Your task to perform on an android device: Search for a new lawnmower on home depot Image 0: 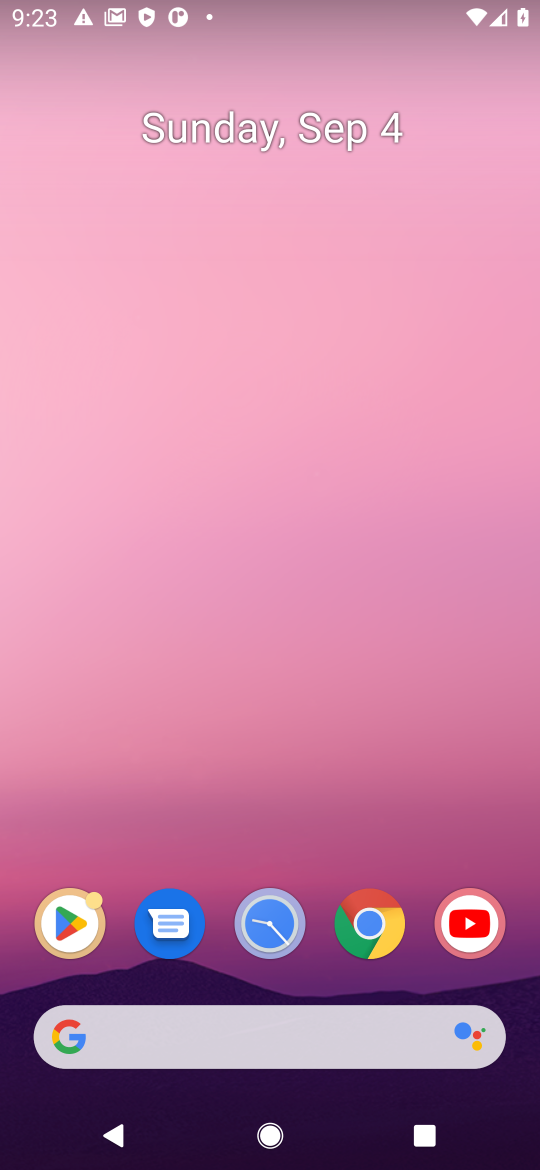
Step 0: press home button
Your task to perform on an android device: Search for a new lawnmower on home depot Image 1: 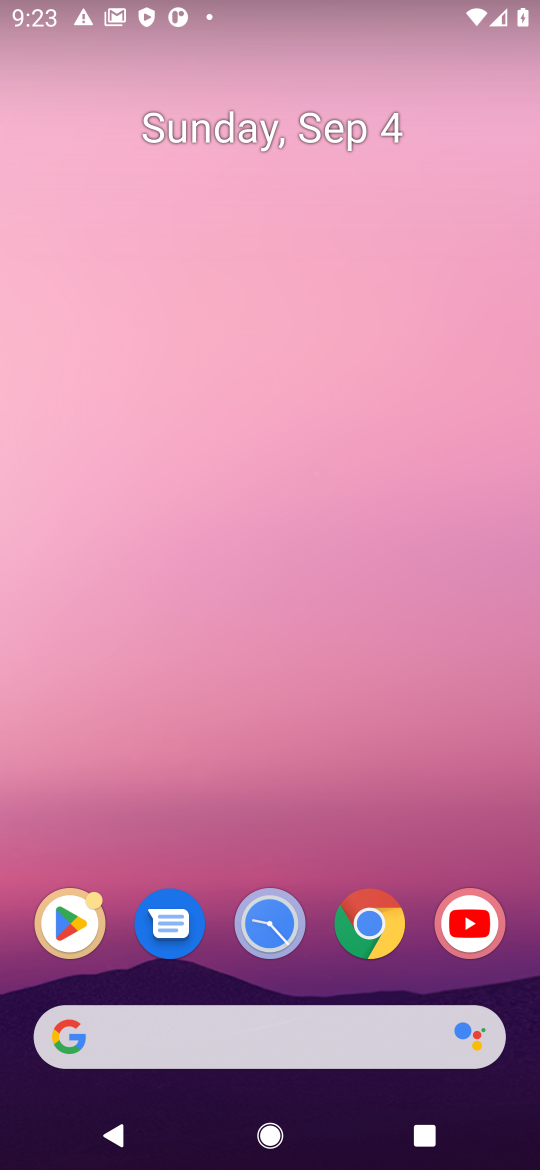
Step 1: click (400, 1033)
Your task to perform on an android device: Search for a new lawnmower on home depot Image 2: 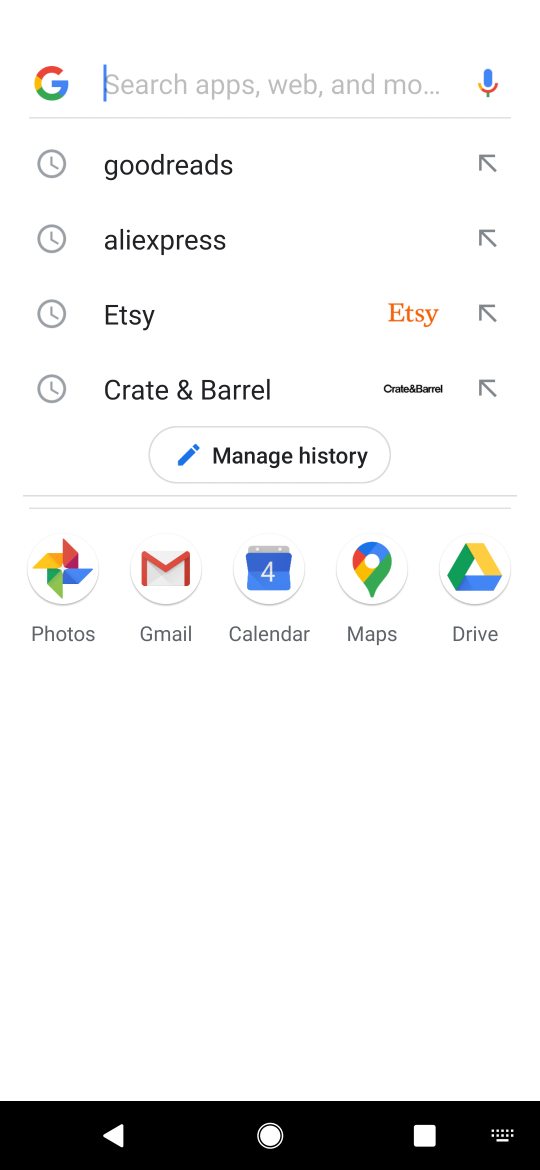
Step 2: press enter
Your task to perform on an android device: Search for a new lawnmower on home depot Image 3: 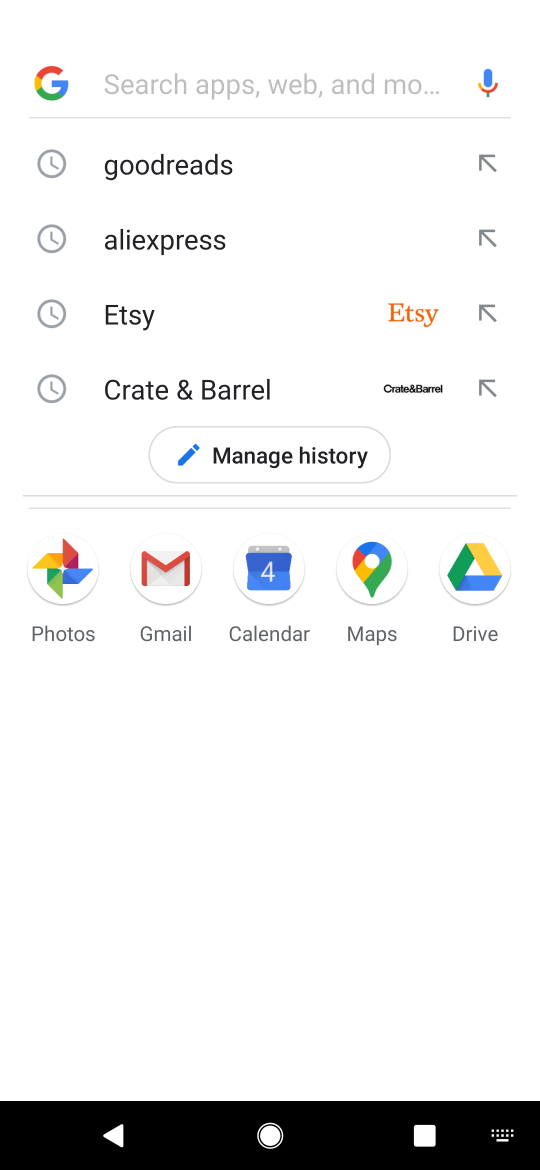
Step 3: type "home depot"
Your task to perform on an android device: Search for a new lawnmower on home depot Image 4: 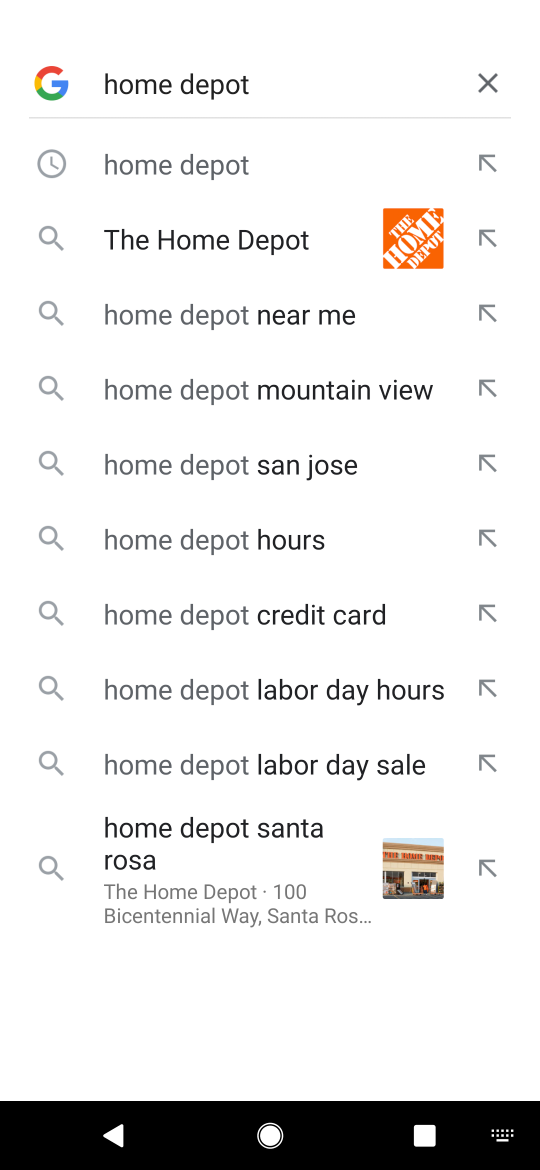
Step 4: click (248, 164)
Your task to perform on an android device: Search for a new lawnmower on home depot Image 5: 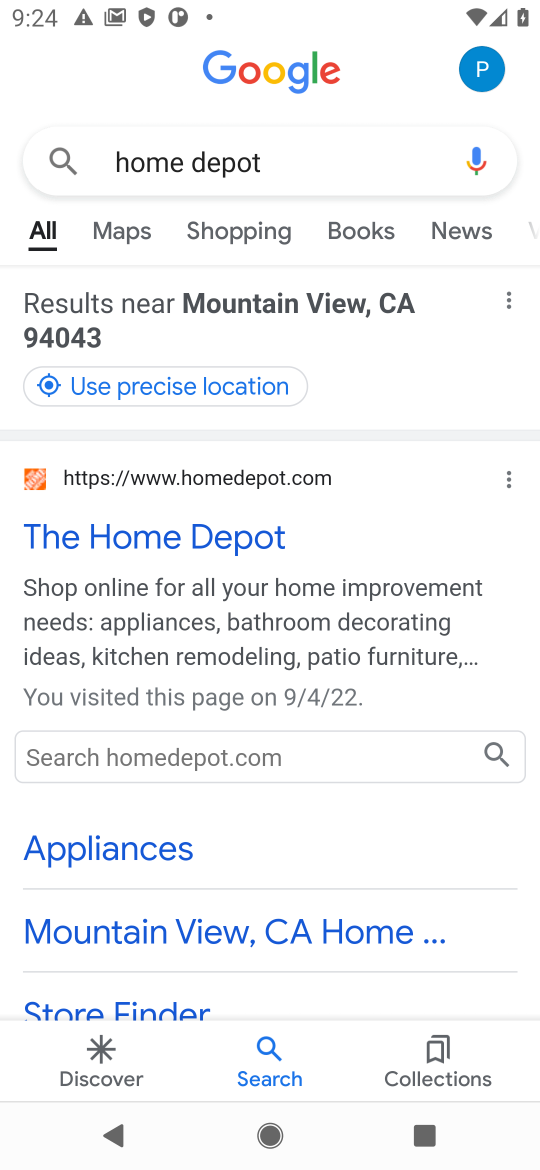
Step 5: click (215, 536)
Your task to perform on an android device: Search for a new lawnmower on home depot Image 6: 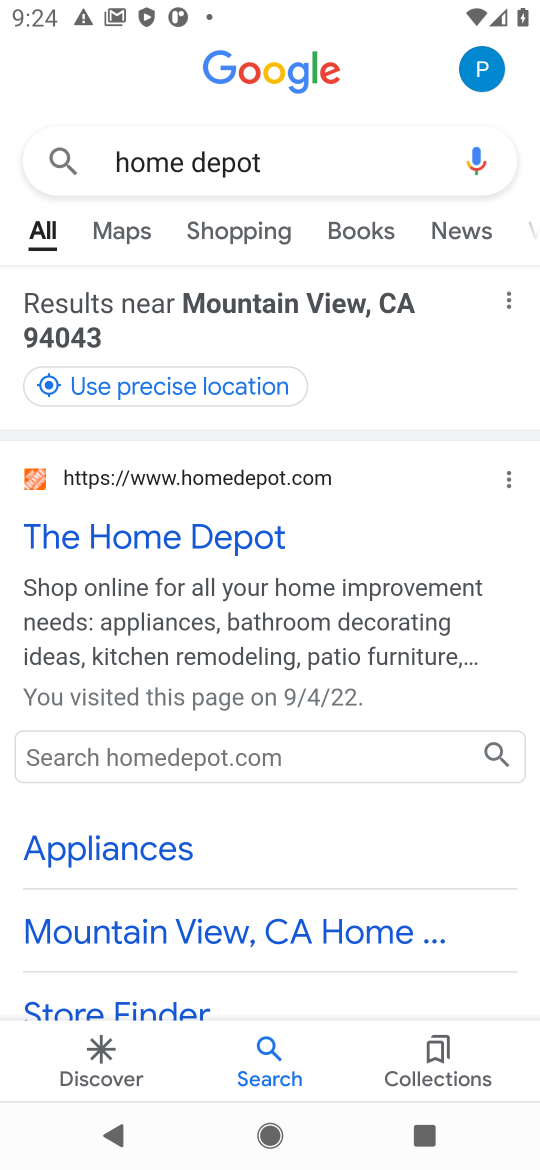
Step 6: click (221, 527)
Your task to perform on an android device: Search for a new lawnmower on home depot Image 7: 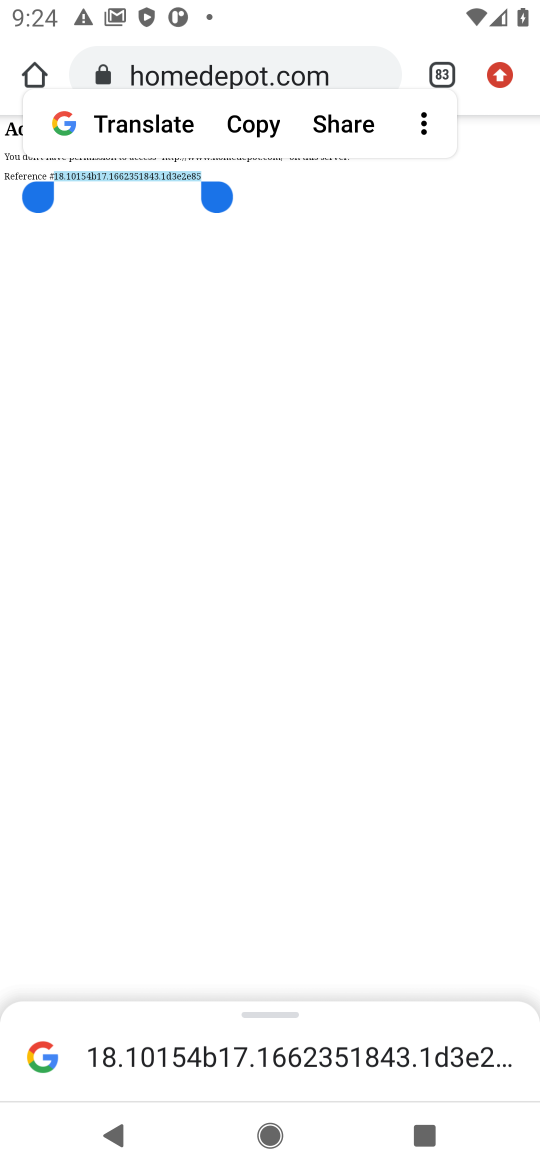
Step 7: task complete